Your task to perform on an android device: Open notification settings Image 0: 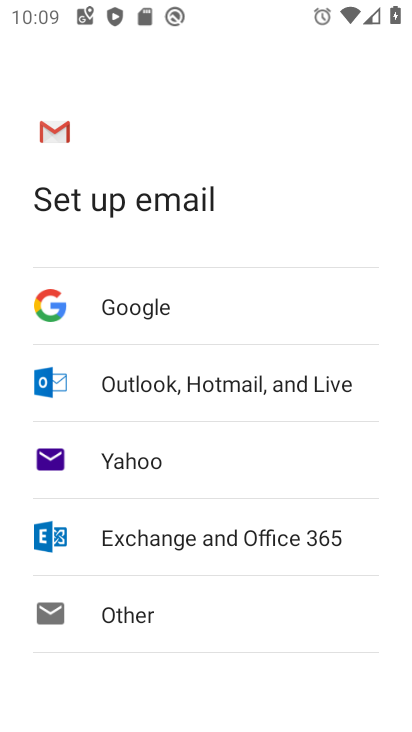
Step 0: press home button
Your task to perform on an android device: Open notification settings Image 1: 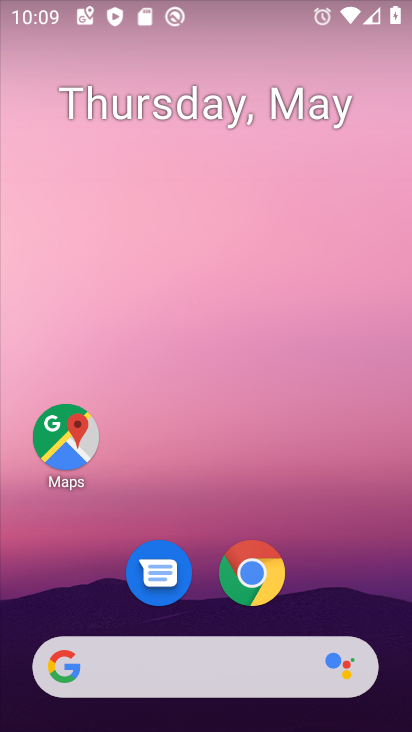
Step 1: drag from (212, 599) to (227, 182)
Your task to perform on an android device: Open notification settings Image 2: 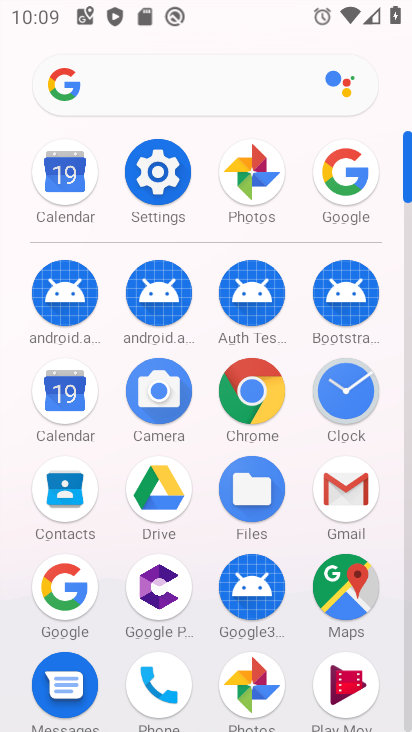
Step 2: click (159, 180)
Your task to perform on an android device: Open notification settings Image 3: 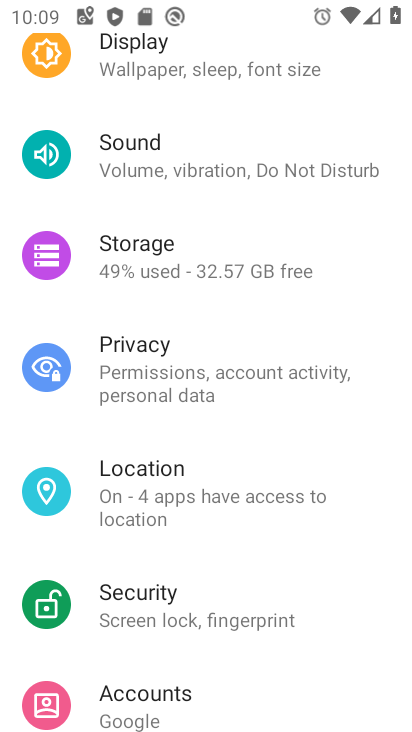
Step 3: drag from (243, 230) to (280, 593)
Your task to perform on an android device: Open notification settings Image 4: 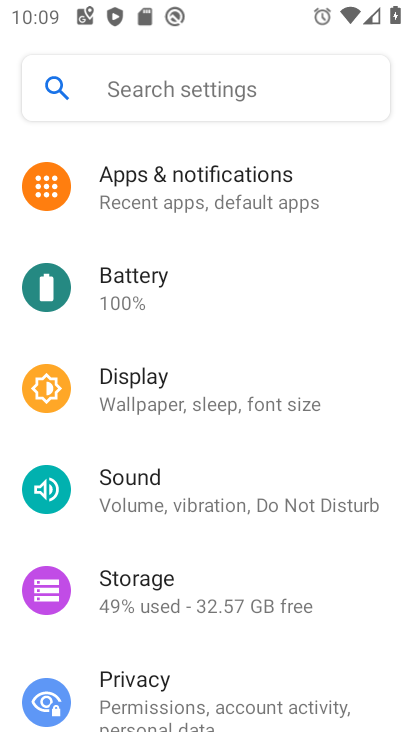
Step 4: click (215, 206)
Your task to perform on an android device: Open notification settings Image 5: 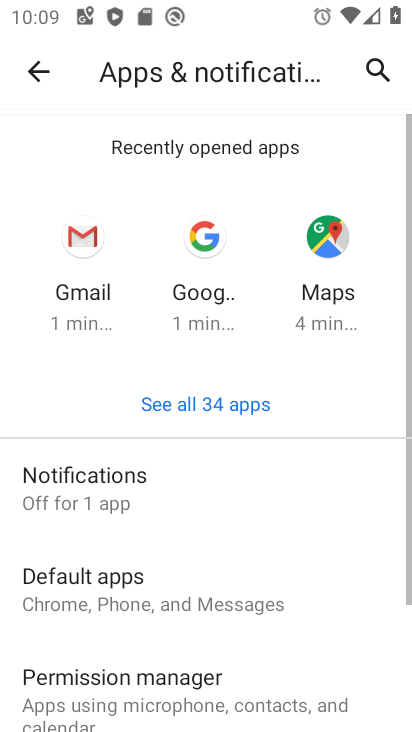
Step 5: click (148, 493)
Your task to perform on an android device: Open notification settings Image 6: 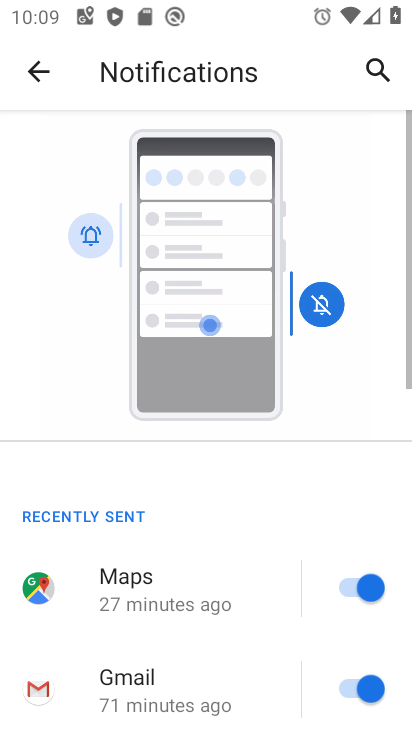
Step 6: task complete